Your task to perform on an android device: Open Google Maps and go to "Timeline" Image 0: 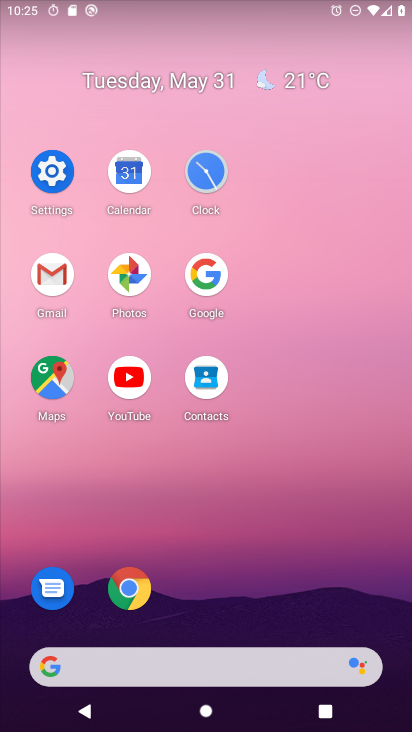
Step 0: click (53, 388)
Your task to perform on an android device: Open Google Maps and go to "Timeline" Image 1: 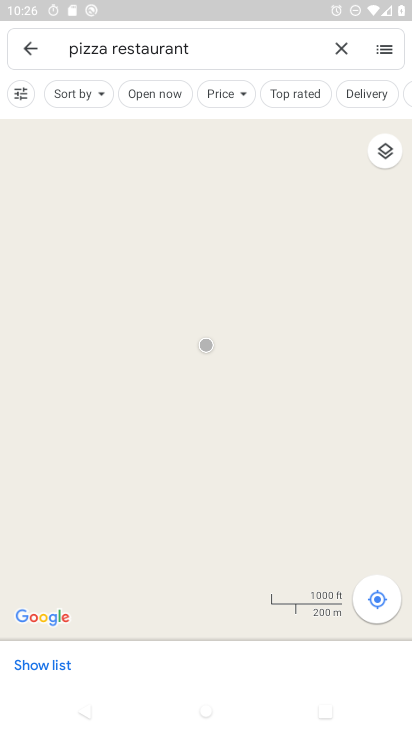
Step 1: click (31, 57)
Your task to perform on an android device: Open Google Maps and go to "Timeline" Image 2: 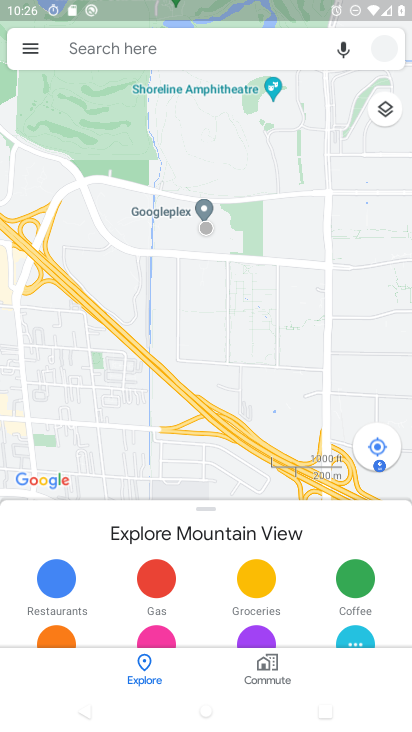
Step 2: click (31, 57)
Your task to perform on an android device: Open Google Maps and go to "Timeline" Image 3: 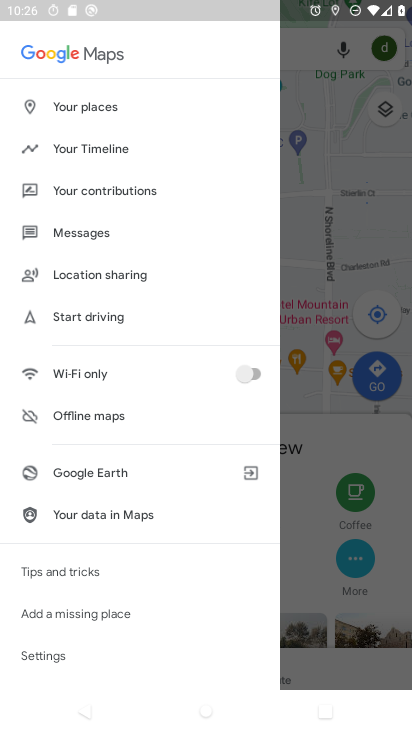
Step 3: click (108, 152)
Your task to perform on an android device: Open Google Maps and go to "Timeline" Image 4: 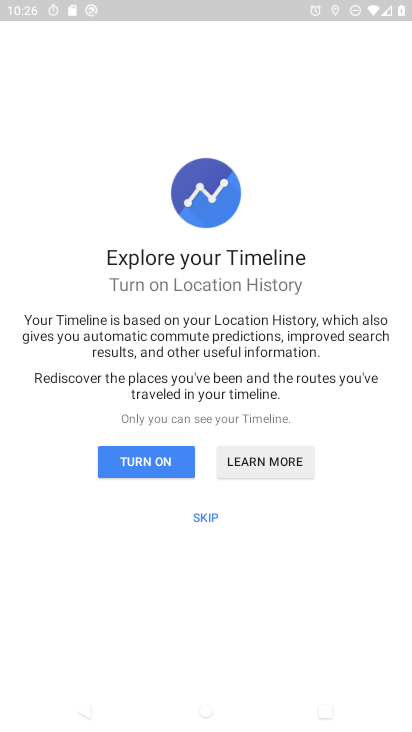
Step 4: click (175, 469)
Your task to perform on an android device: Open Google Maps and go to "Timeline" Image 5: 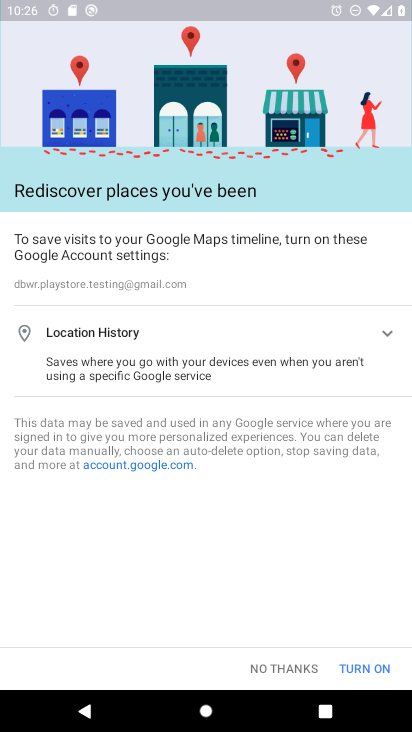
Step 5: click (369, 677)
Your task to perform on an android device: Open Google Maps and go to "Timeline" Image 6: 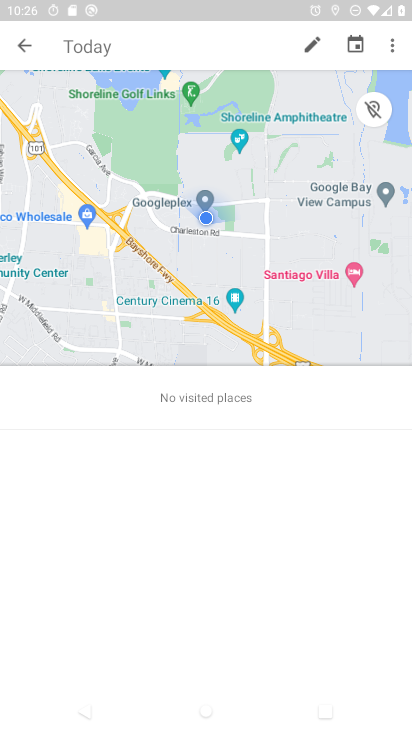
Step 6: task complete